Your task to perform on an android device: empty trash in the gmail app Image 0: 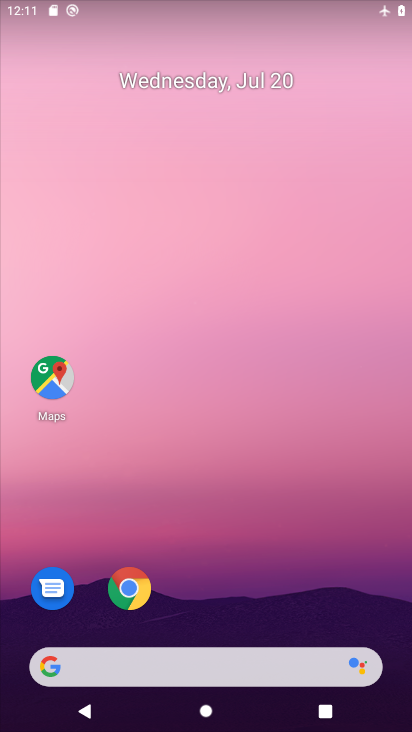
Step 0: click (220, 265)
Your task to perform on an android device: empty trash in the gmail app Image 1: 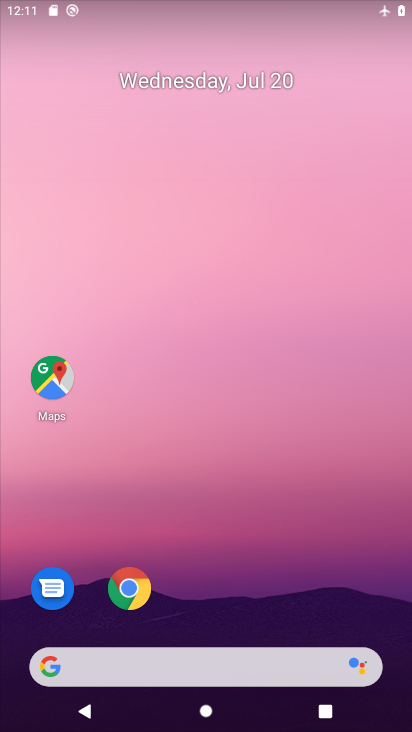
Step 1: drag from (195, 613) to (201, 310)
Your task to perform on an android device: empty trash in the gmail app Image 2: 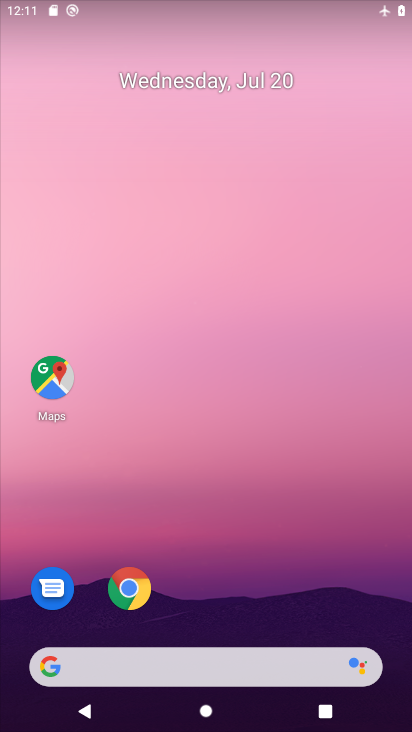
Step 2: drag from (229, 595) to (231, 202)
Your task to perform on an android device: empty trash in the gmail app Image 3: 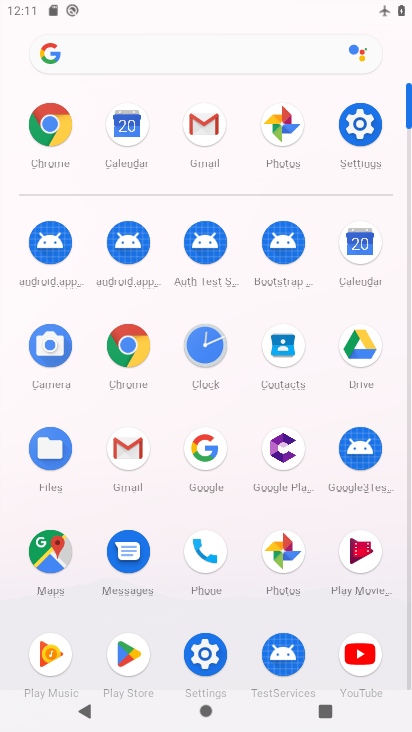
Step 3: click (132, 440)
Your task to perform on an android device: empty trash in the gmail app Image 4: 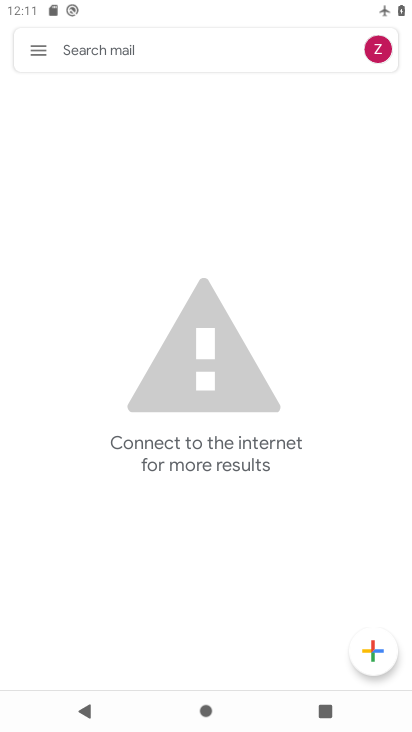
Step 4: click (37, 43)
Your task to perform on an android device: empty trash in the gmail app Image 5: 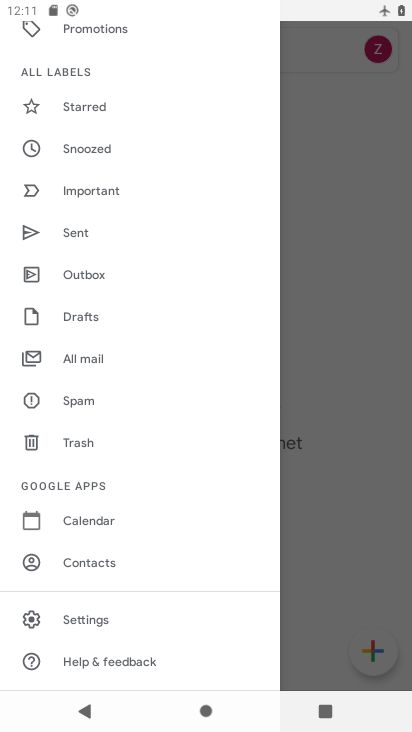
Step 5: click (79, 441)
Your task to perform on an android device: empty trash in the gmail app Image 6: 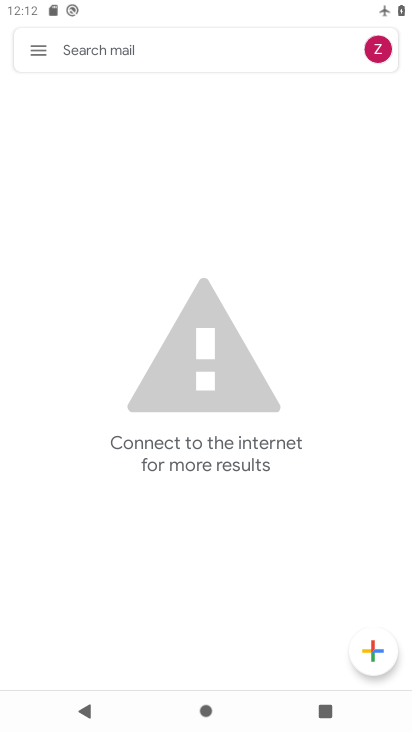
Step 6: click (39, 44)
Your task to perform on an android device: empty trash in the gmail app Image 7: 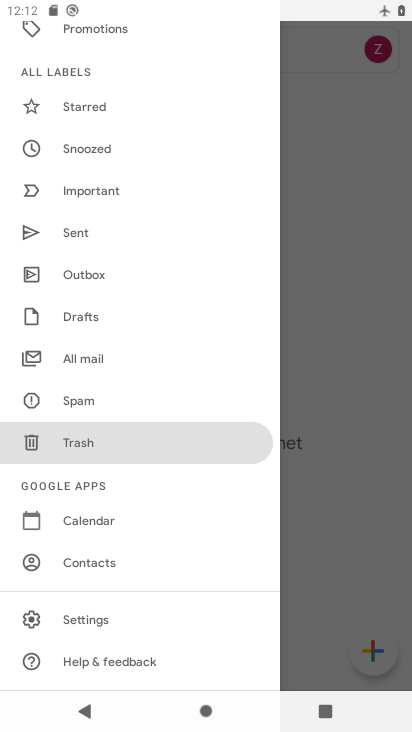
Step 7: click (133, 441)
Your task to perform on an android device: empty trash in the gmail app Image 8: 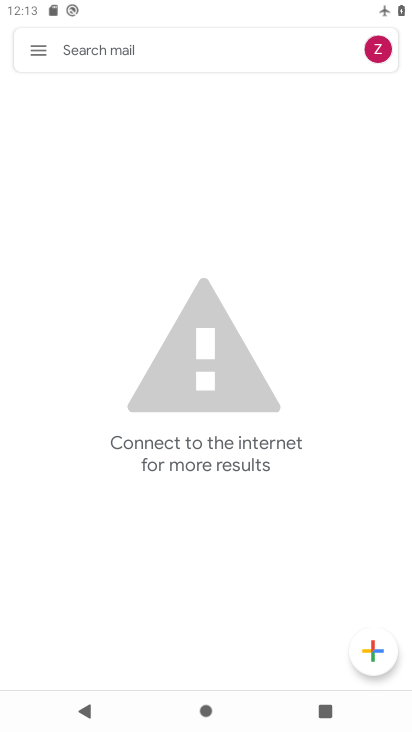
Step 8: task complete